Your task to perform on an android device: manage bookmarks in the chrome app Image 0: 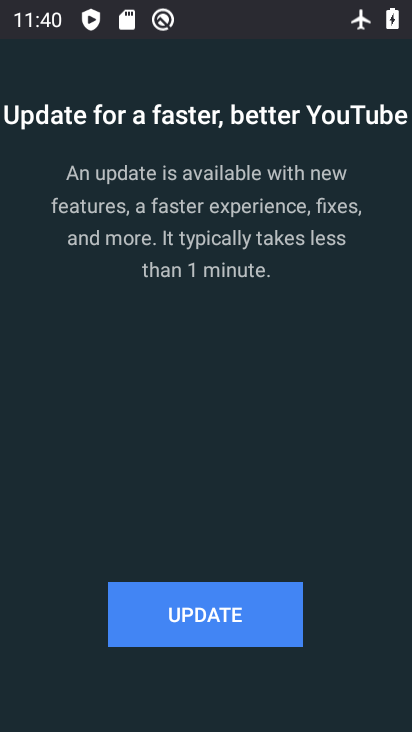
Step 0: press home button
Your task to perform on an android device: manage bookmarks in the chrome app Image 1: 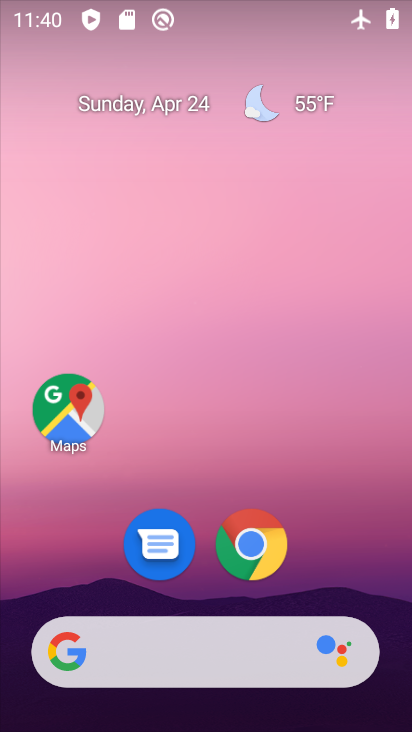
Step 1: click (261, 549)
Your task to perform on an android device: manage bookmarks in the chrome app Image 2: 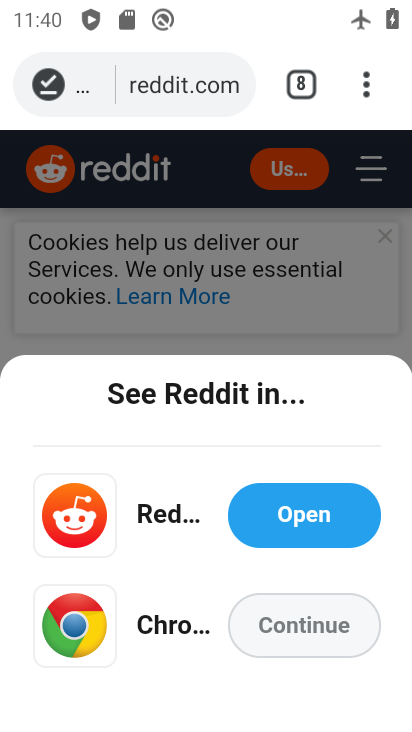
Step 2: drag from (367, 86) to (91, 423)
Your task to perform on an android device: manage bookmarks in the chrome app Image 3: 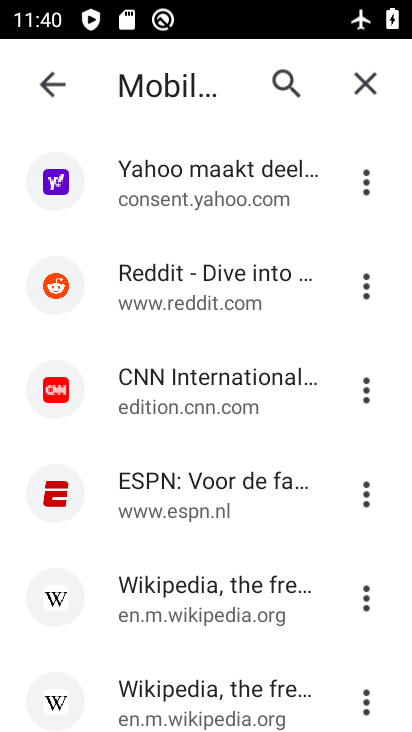
Step 3: click (368, 498)
Your task to perform on an android device: manage bookmarks in the chrome app Image 4: 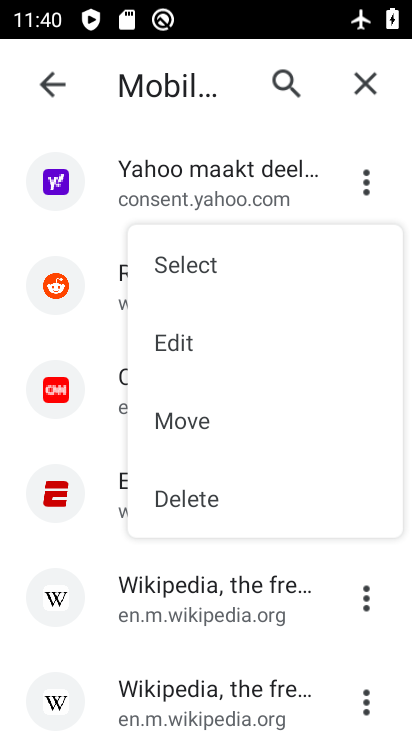
Step 4: click (216, 501)
Your task to perform on an android device: manage bookmarks in the chrome app Image 5: 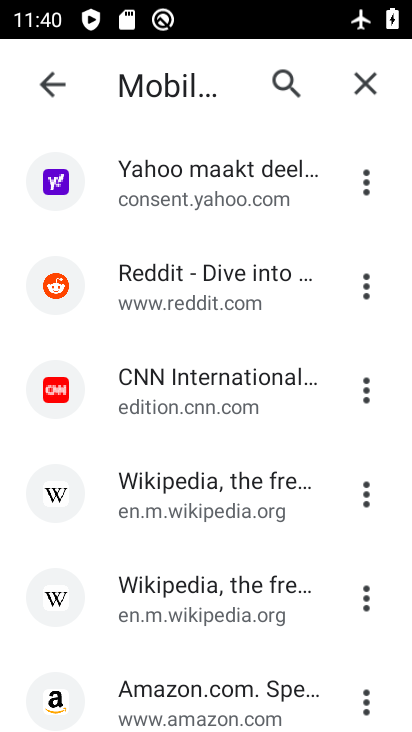
Step 5: task complete